Your task to perform on an android device: turn notification dots on Image 0: 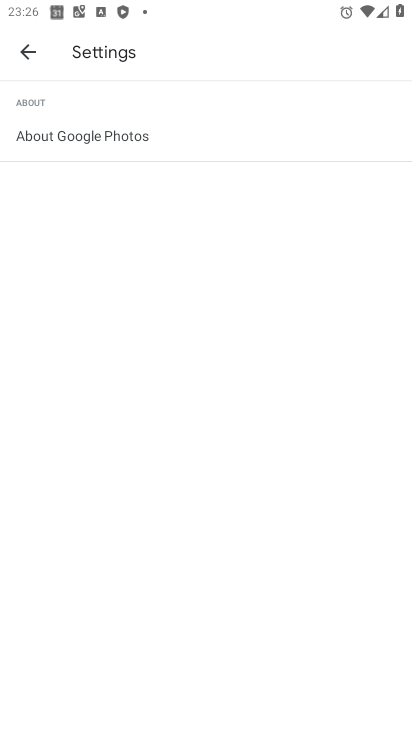
Step 0: press home button
Your task to perform on an android device: turn notification dots on Image 1: 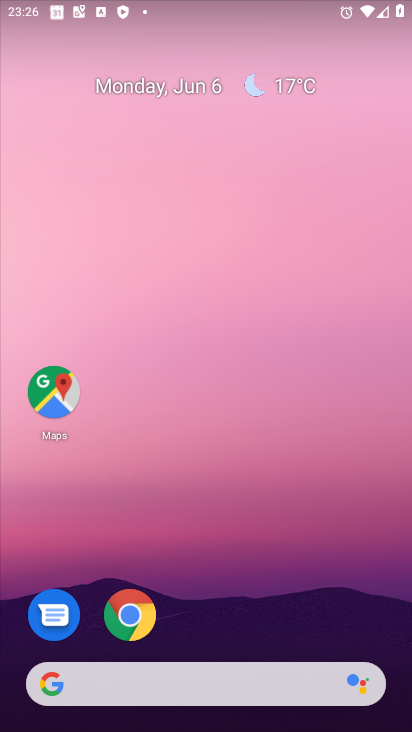
Step 1: drag from (397, 686) to (375, 194)
Your task to perform on an android device: turn notification dots on Image 2: 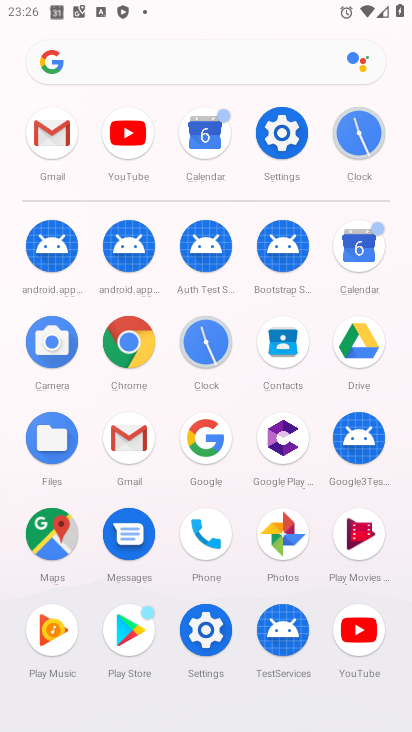
Step 2: click (207, 628)
Your task to perform on an android device: turn notification dots on Image 3: 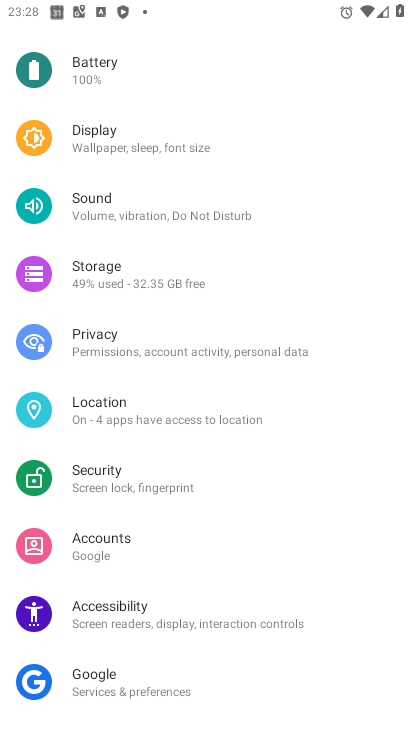
Step 3: drag from (189, 85) to (216, 488)
Your task to perform on an android device: turn notification dots on Image 4: 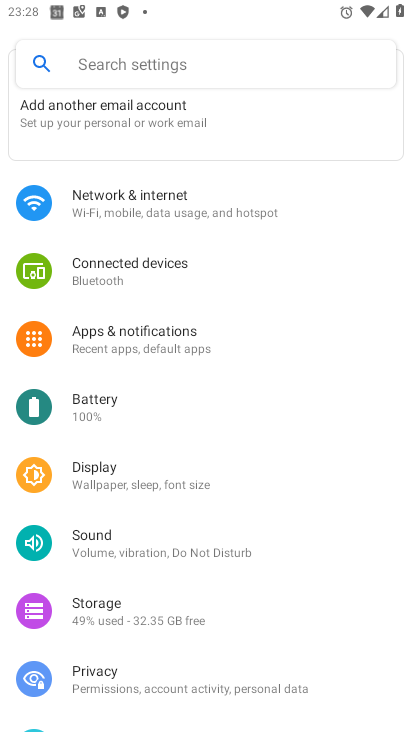
Step 4: click (142, 330)
Your task to perform on an android device: turn notification dots on Image 5: 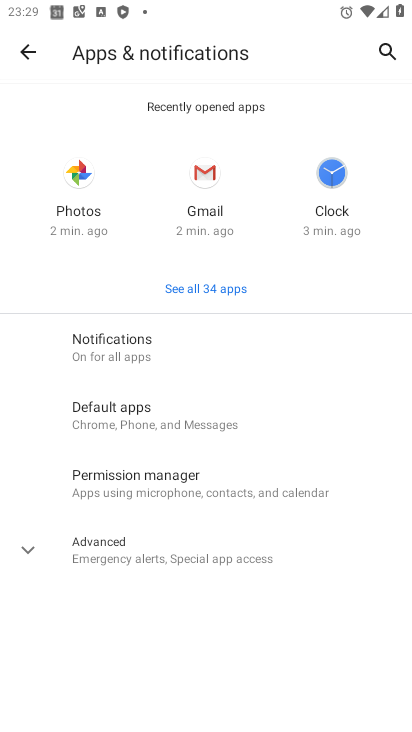
Step 5: click (113, 359)
Your task to perform on an android device: turn notification dots on Image 6: 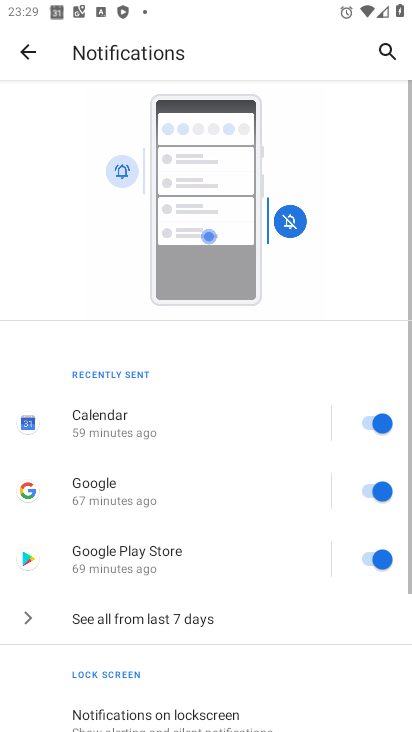
Step 6: drag from (281, 644) to (260, 288)
Your task to perform on an android device: turn notification dots on Image 7: 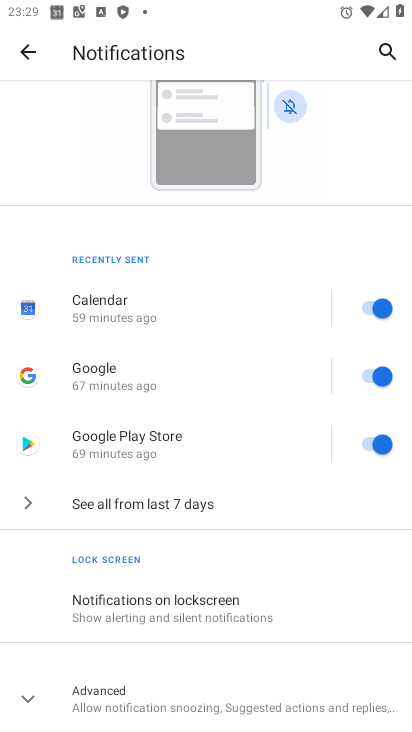
Step 7: click (42, 695)
Your task to perform on an android device: turn notification dots on Image 8: 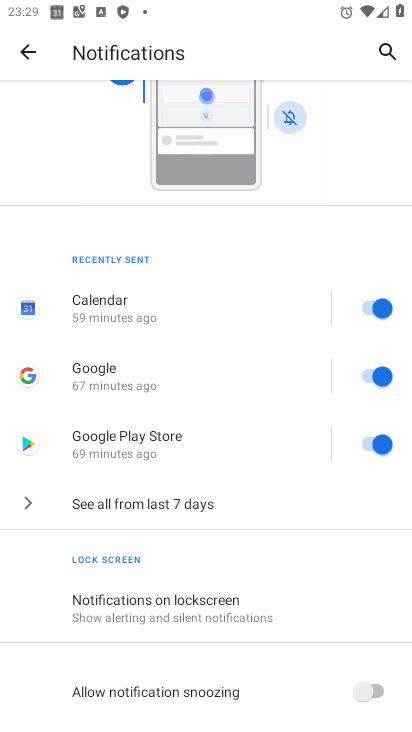
Step 8: task complete